Your task to perform on an android device: delete the emails in spam in the gmail app Image 0: 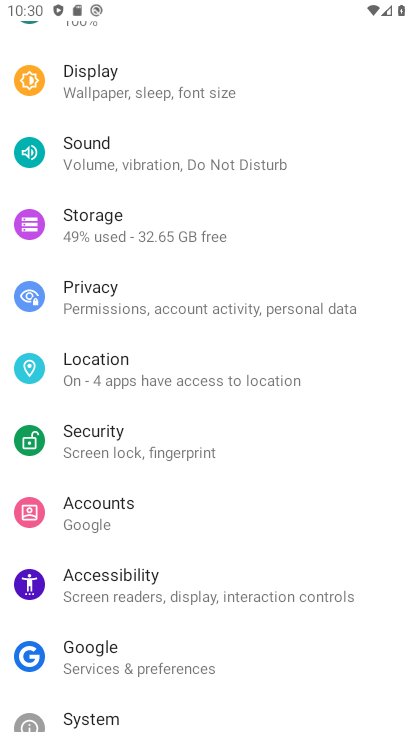
Step 0: press home button
Your task to perform on an android device: delete the emails in spam in the gmail app Image 1: 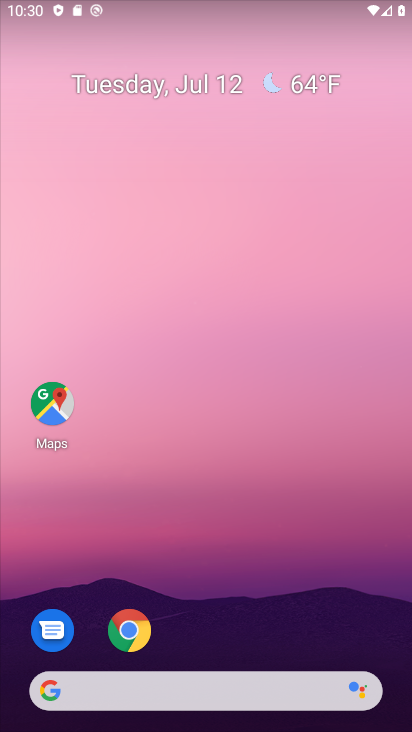
Step 1: drag from (367, 556) to (378, 66)
Your task to perform on an android device: delete the emails in spam in the gmail app Image 2: 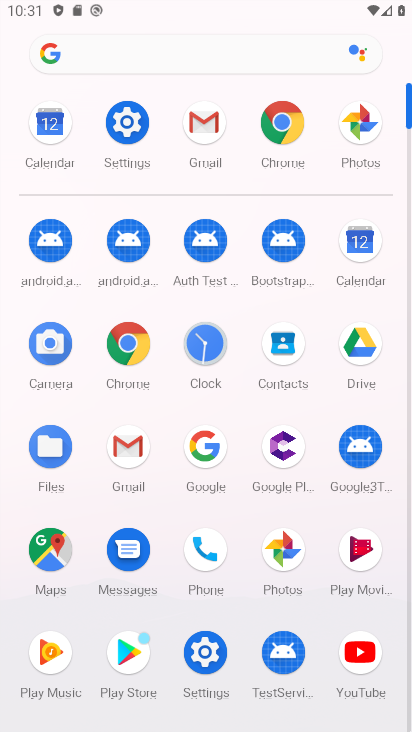
Step 2: click (121, 452)
Your task to perform on an android device: delete the emails in spam in the gmail app Image 3: 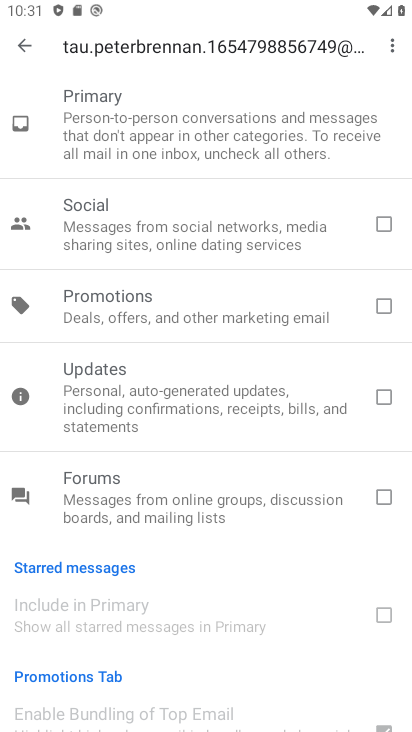
Step 3: press back button
Your task to perform on an android device: delete the emails in spam in the gmail app Image 4: 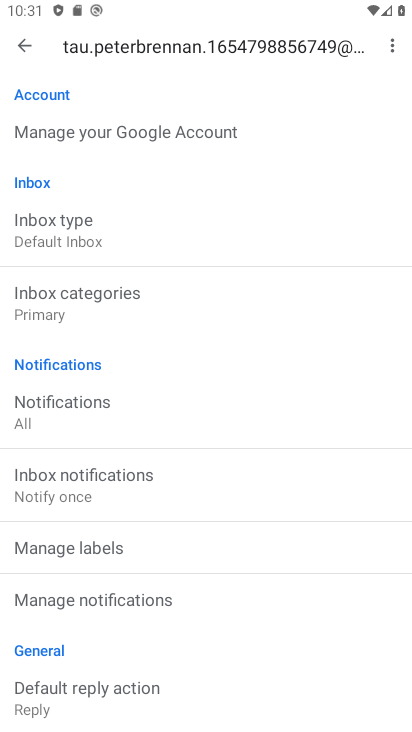
Step 4: press back button
Your task to perform on an android device: delete the emails in spam in the gmail app Image 5: 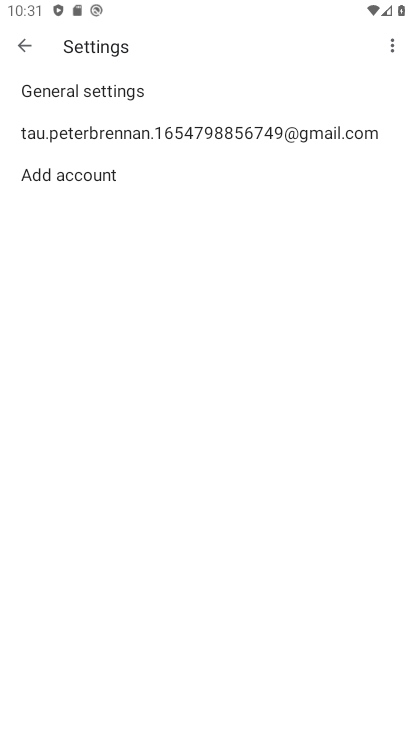
Step 5: press back button
Your task to perform on an android device: delete the emails in spam in the gmail app Image 6: 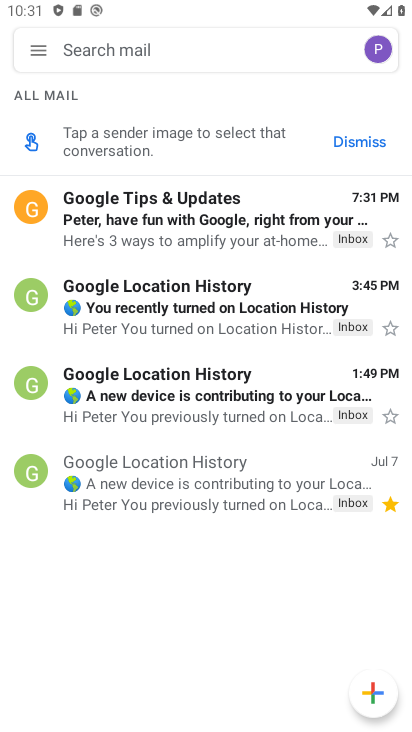
Step 6: click (36, 48)
Your task to perform on an android device: delete the emails in spam in the gmail app Image 7: 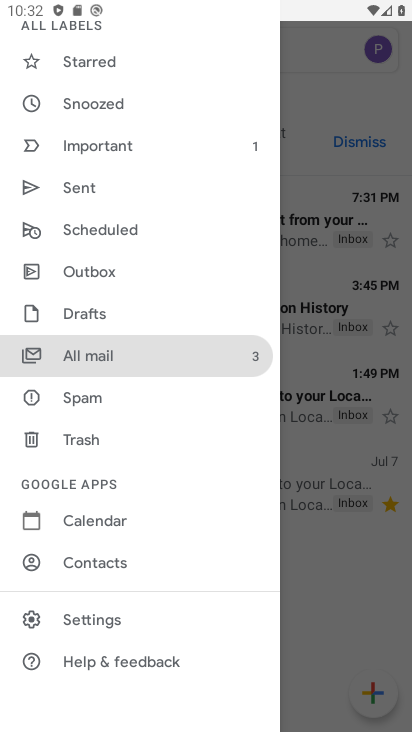
Step 7: click (121, 399)
Your task to perform on an android device: delete the emails in spam in the gmail app Image 8: 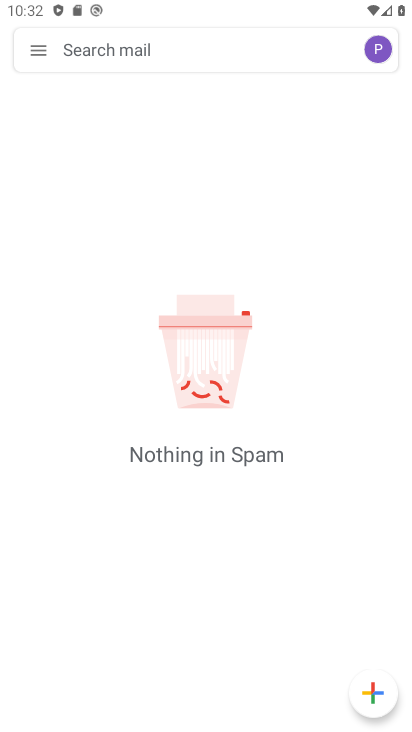
Step 8: task complete